Your task to perform on an android device: toggle javascript in the chrome app Image 0: 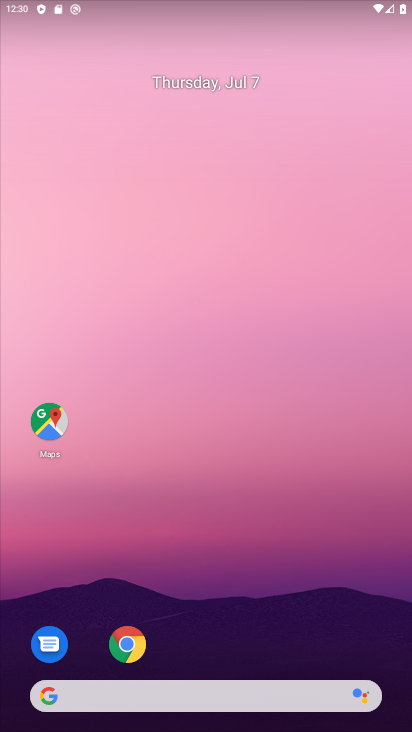
Step 0: click (129, 653)
Your task to perform on an android device: toggle javascript in the chrome app Image 1: 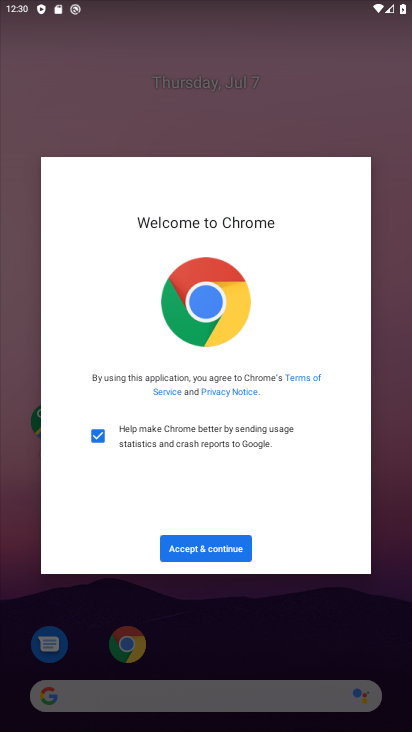
Step 1: click (217, 549)
Your task to perform on an android device: toggle javascript in the chrome app Image 2: 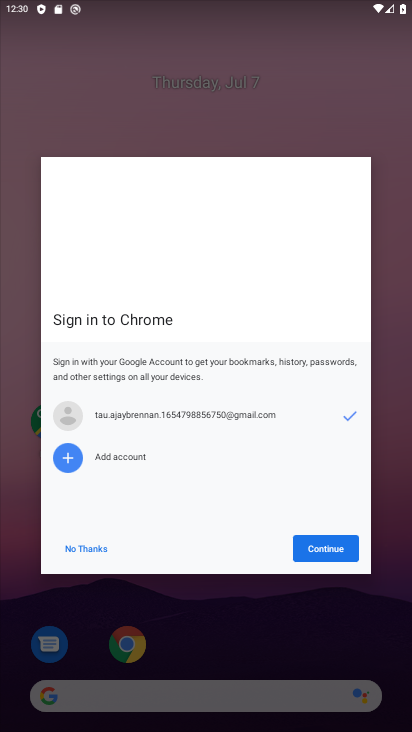
Step 2: click (353, 542)
Your task to perform on an android device: toggle javascript in the chrome app Image 3: 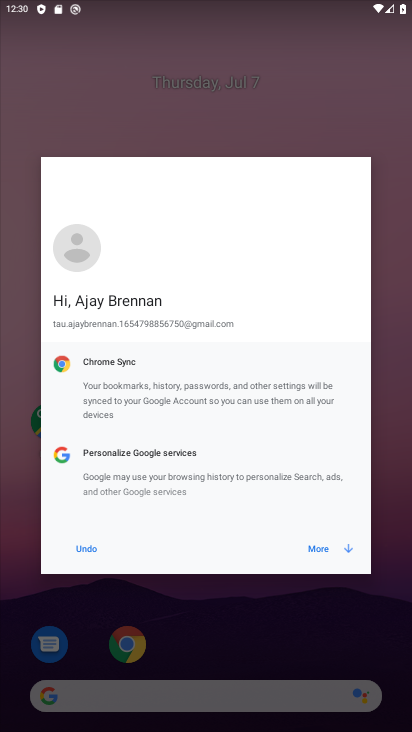
Step 3: click (333, 549)
Your task to perform on an android device: toggle javascript in the chrome app Image 4: 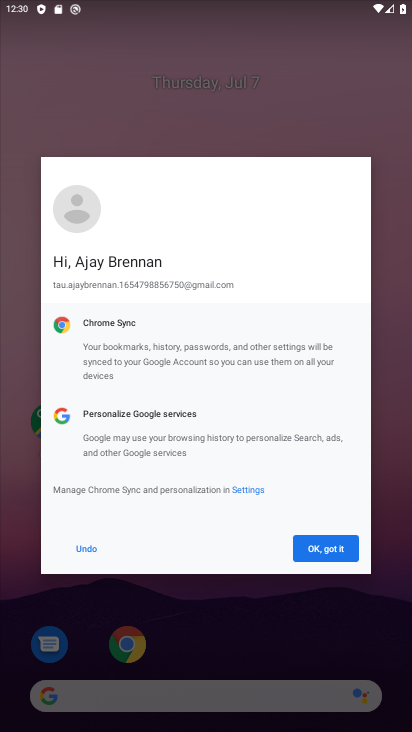
Step 4: click (340, 555)
Your task to perform on an android device: toggle javascript in the chrome app Image 5: 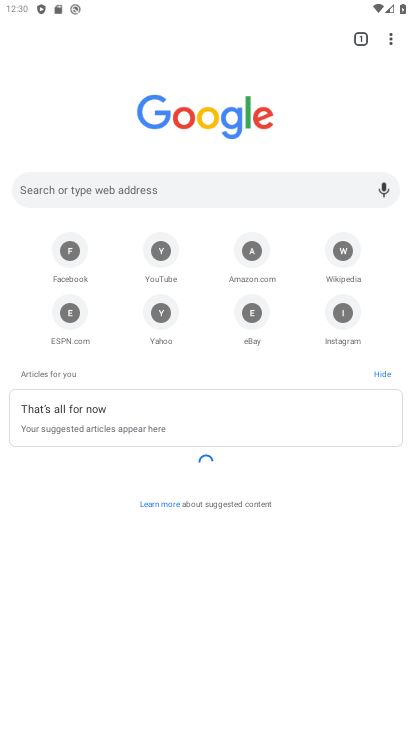
Step 5: click (391, 46)
Your task to perform on an android device: toggle javascript in the chrome app Image 6: 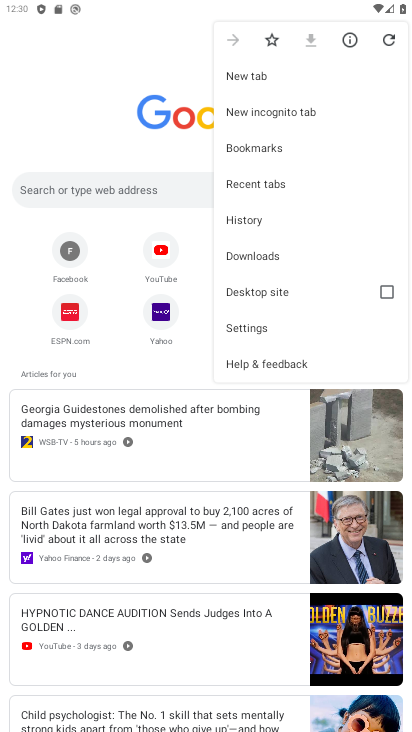
Step 6: click (302, 332)
Your task to perform on an android device: toggle javascript in the chrome app Image 7: 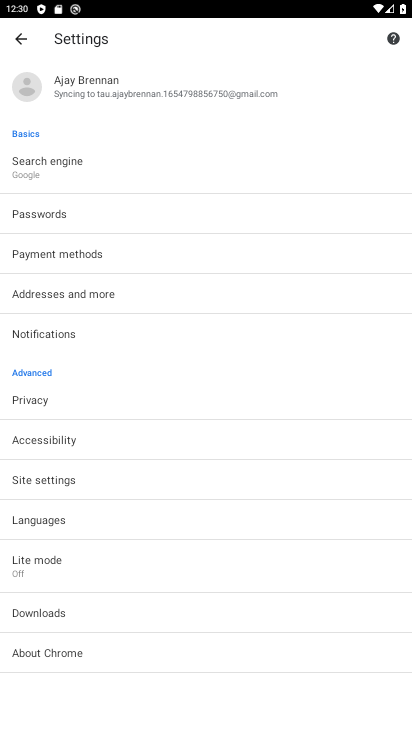
Step 7: click (71, 484)
Your task to perform on an android device: toggle javascript in the chrome app Image 8: 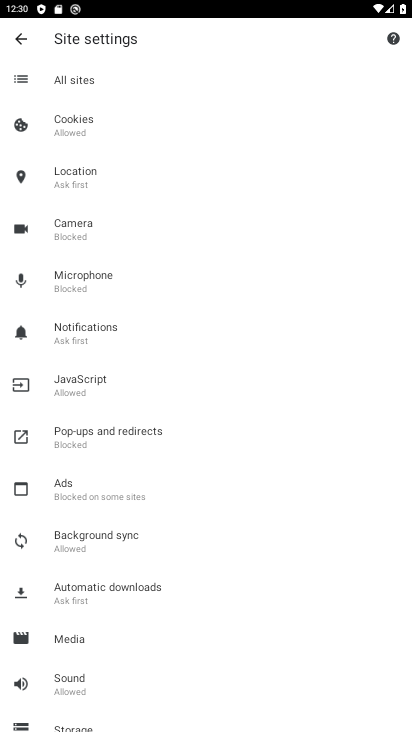
Step 8: click (142, 384)
Your task to perform on an android device: toggle javascript in the chrome app Image 9: 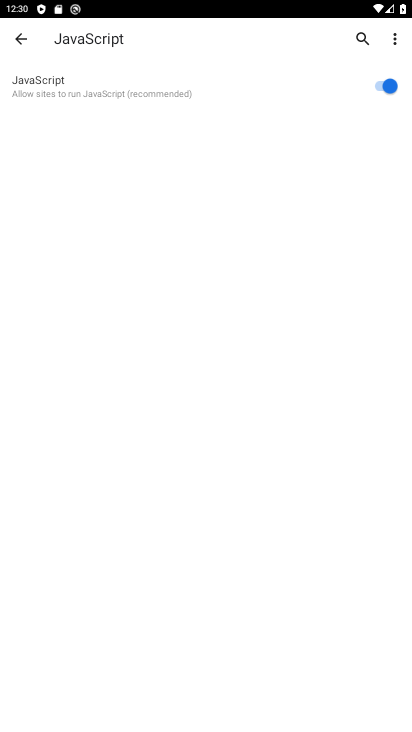
Step 9: click (386, 93)
Your task to perform on an android device: toggle javascript in the chrome app Image 10: 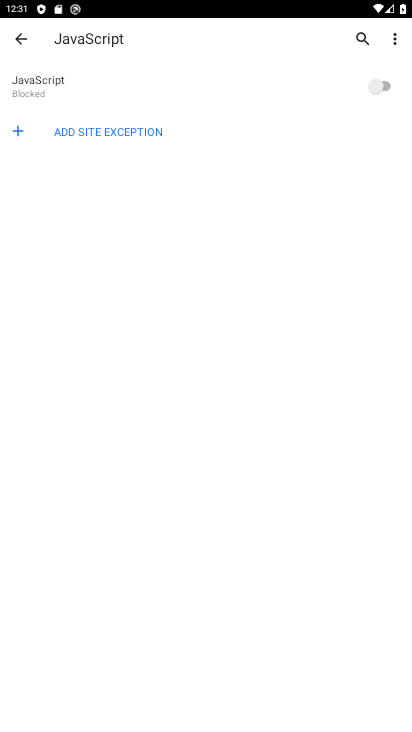
Step 10: task complete